Your task to perform on an android device: toggle translation in the chrome app Image 0: 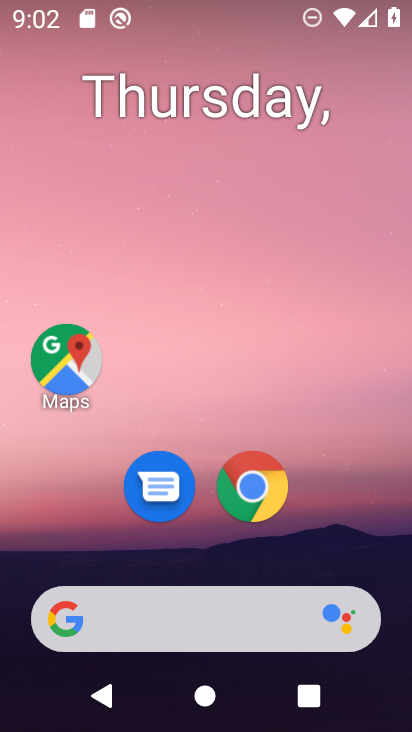
Step 0: click (273, 476)
Your task to perform on an android device: toggle translation in the chrome app Image 1: 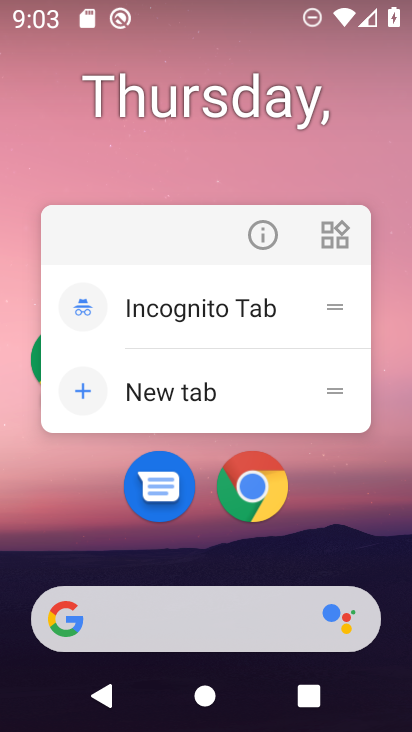
Step 1: click (272, 504)
Your task to perform on an android device: toggle translation in the chrome app Image 2: 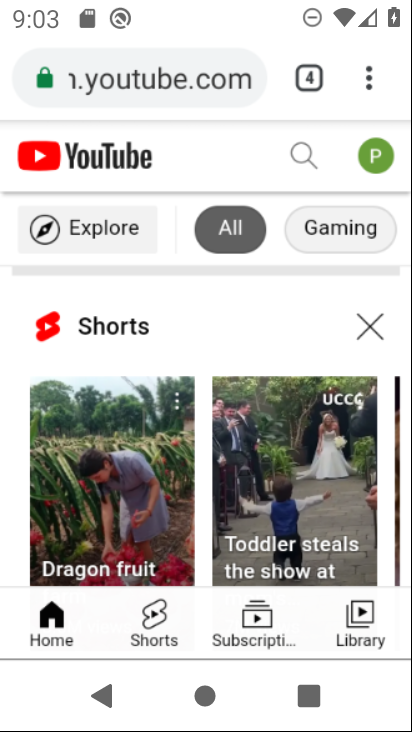
Step 2: click (367, 73)
Your task to perform on an android device: toggle translation in the chrome app Image 3: 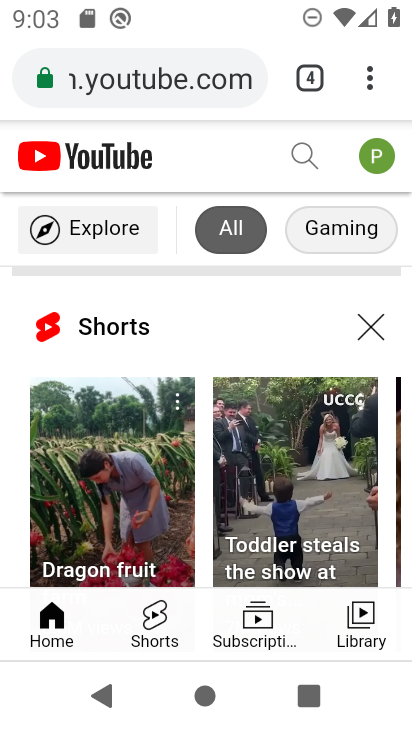
Step 3: drag from (367, 73) to (109, 545)
Your task to perform on an android device: toggle translation in the chrome app Image 4: 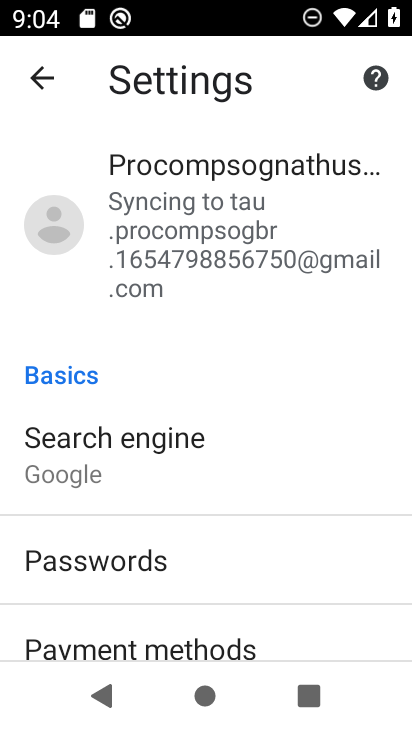
Step 4: drag from (222, 600) to (231, 72)
Your task to perform on an android device: toggle translation in the chrome app Image 5: 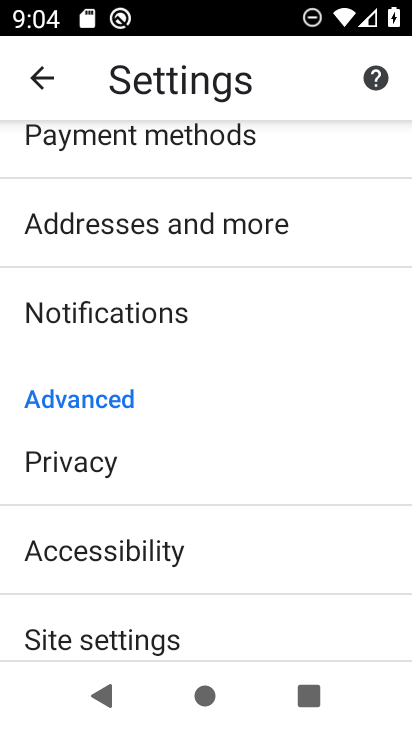
Step 5: drag from (120, 601) to (175, 159)
Your task to perform on an android device: toggle translation in the chrome app Image 6: 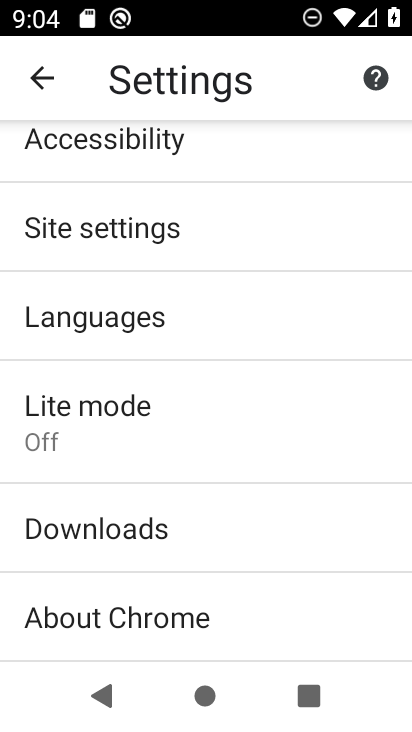
Step 6: click (159, 320)
Your task to perform on an android device: toggle translation in the chrome app Image 7: 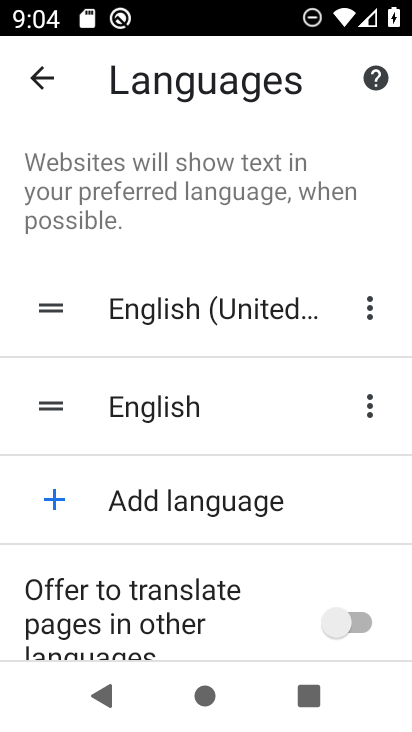
Step 7: click (359, 630)
Your task to perform on an android device: toggle translation in the chrome app Image 8: 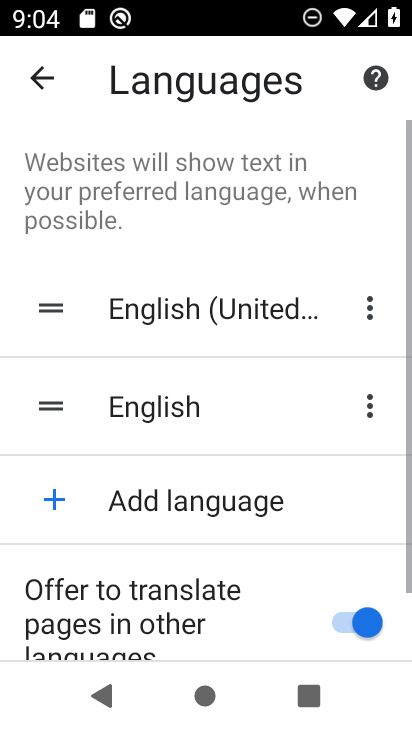
Step 8: task complete